Your task to perform on an android device: Open settings on Google Maps Image 0: 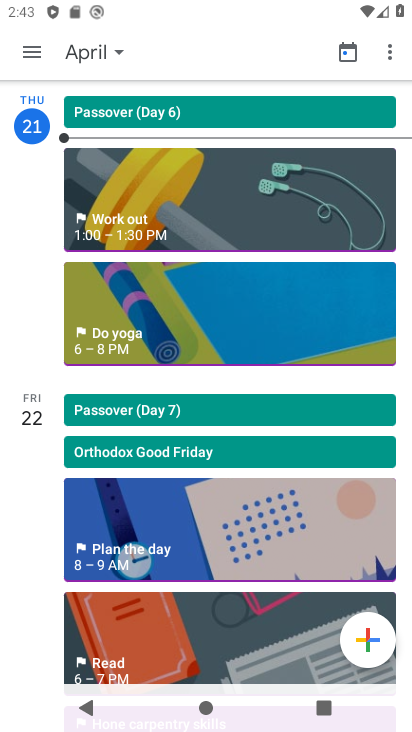
Step 0: press home button
Your task to perform on an android device: Open settings on Google Maps Image 1: 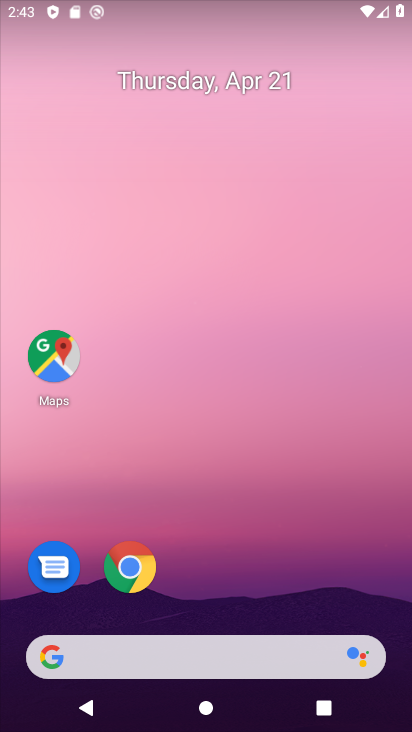
Step 1: click (48, 370)
Your task to perform on an android device: Open settings on Google Maps Image 2: 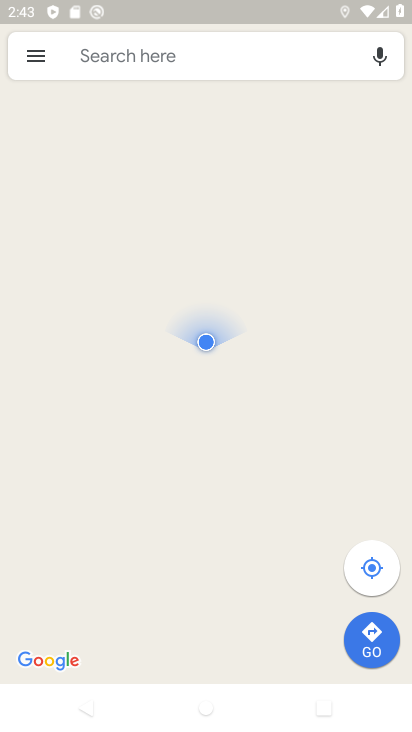
Step 2: click (46, 50)
Your task to perform on an android device: Open settings on Google Maps Image 3: 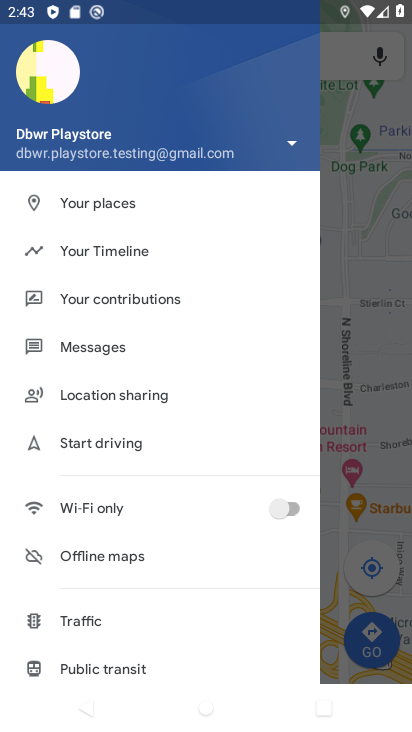
Step 3: drag from (174, 381) to (216, 86)
Your task to perform on an android device: Open settings on Google Maps Image 4: 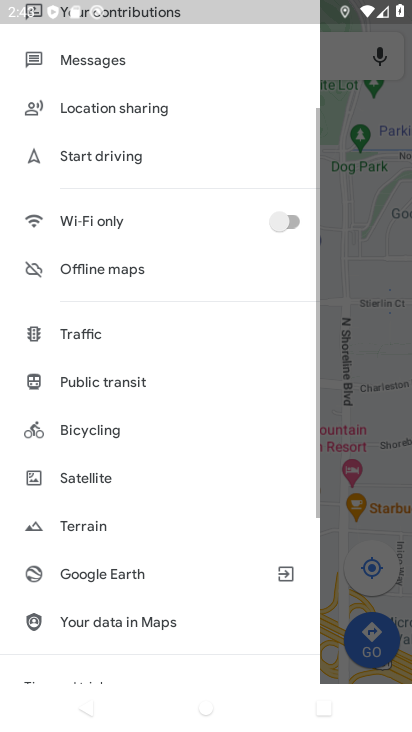
Step 4: drag from (55, 622) to (125, 247)
Your task to perform on an android device: Open settings on Google Maps Image 5: 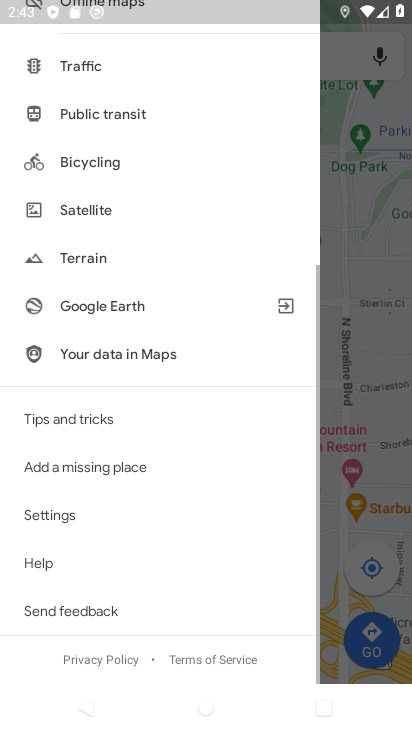
Step 5: click (47, 509)
Your task to perform on an android device: Open settings on Google Maps Image 6: 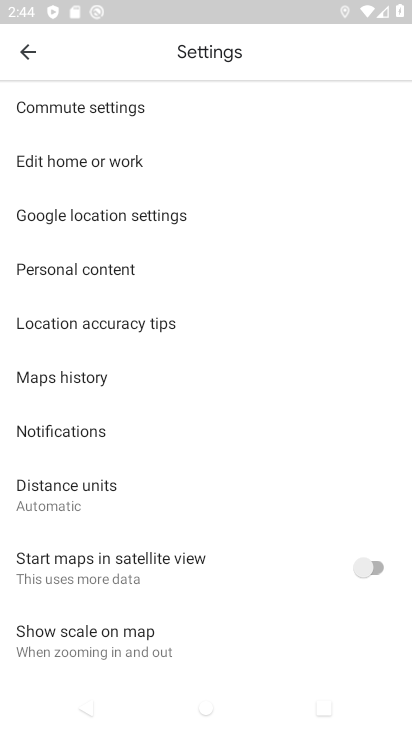
Step 6: task complete